Your task to perform on an android device: Open display settings Image 0: 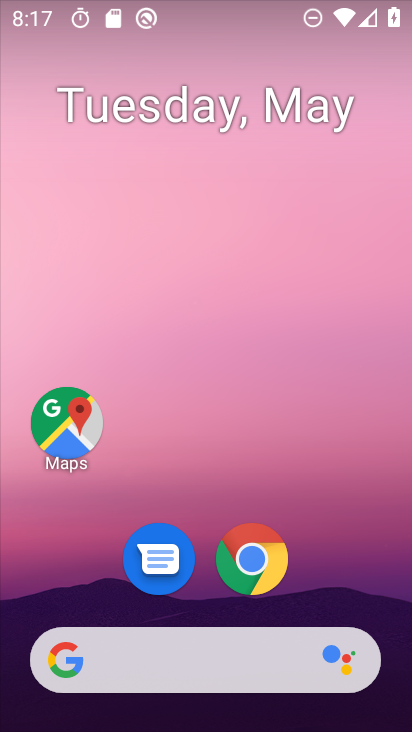
Step 0: drag from (398, 547) to (323, 63)
Your task to perform on an android device: Open display settings Image 1: 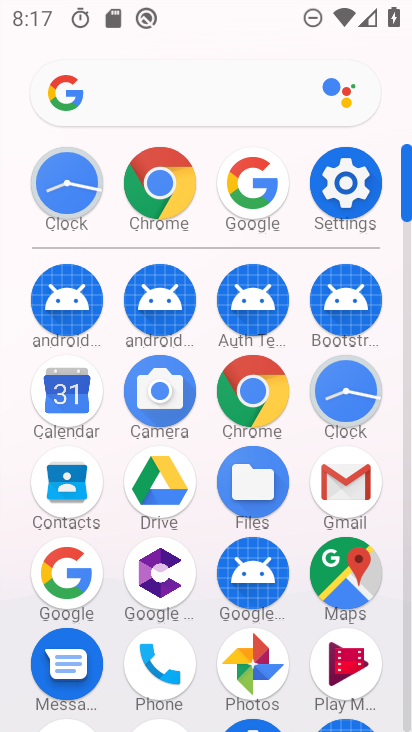
Step 1: click (340, 196)
Your task to perform on an android device: Open display settings Image 2: 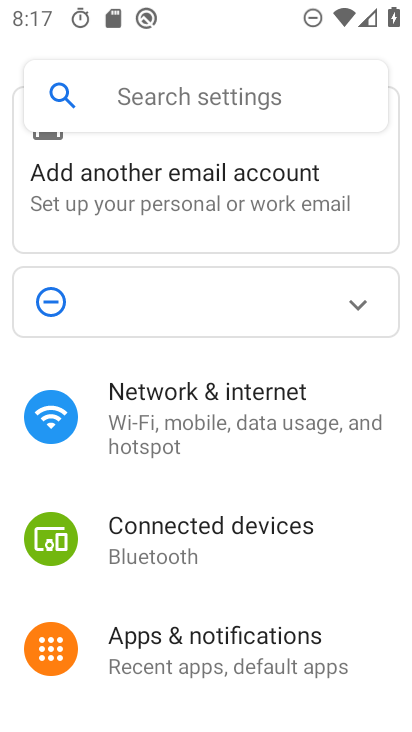
Step 2: drag from (222, 665) to (259, 262)
Your task to perform on an android device: Open display settings Image 3: 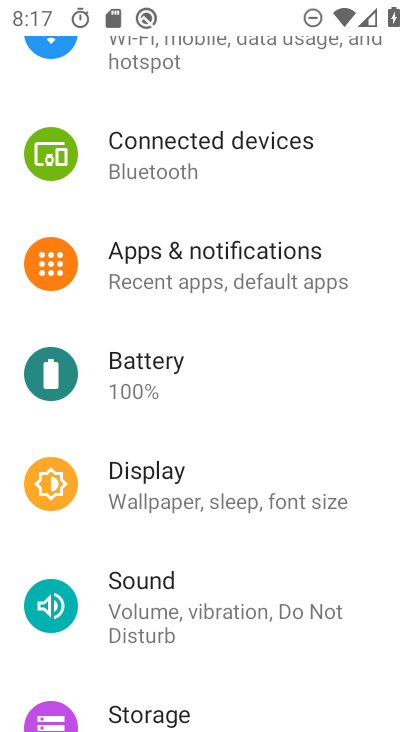
Step 3: click (182, 472)
Your task to perform on an android device: Open display settings Image 4: 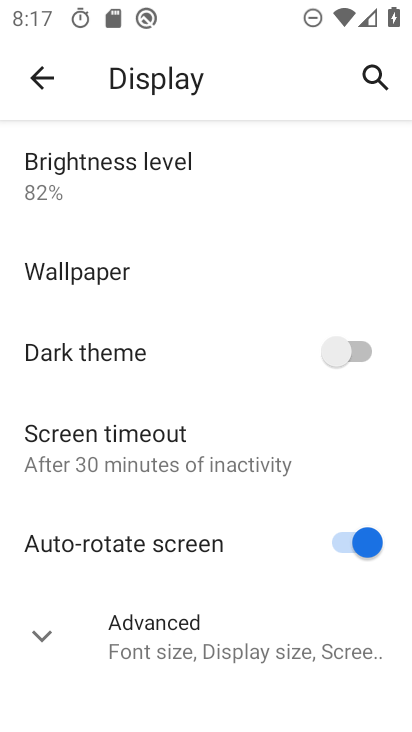
Step 4: task complete